Your task to perform on an android device: set the timer Image 0: 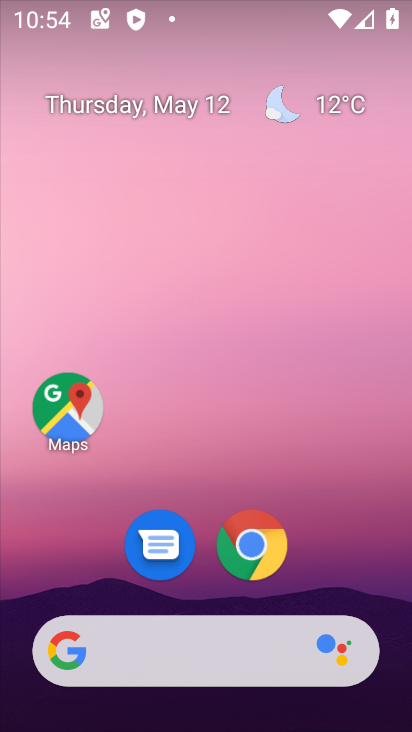
Step 0: drag from (207, 590) to (204, 45)
Your task to perform on an android device: set the timer Image 1: 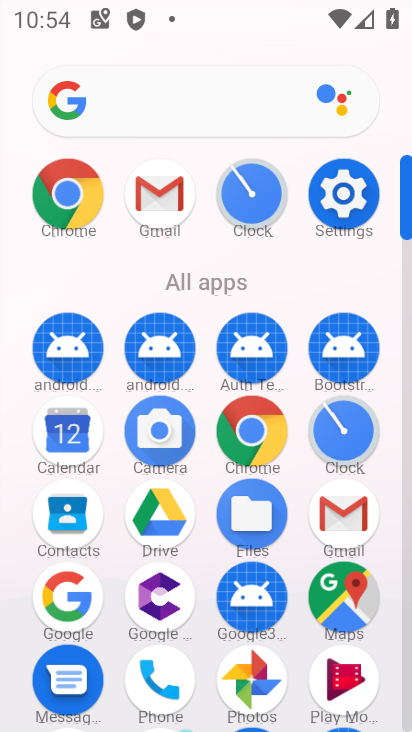
Step 1: click (252, 190)
Your task to perform on an android device: set the timer Image 2: 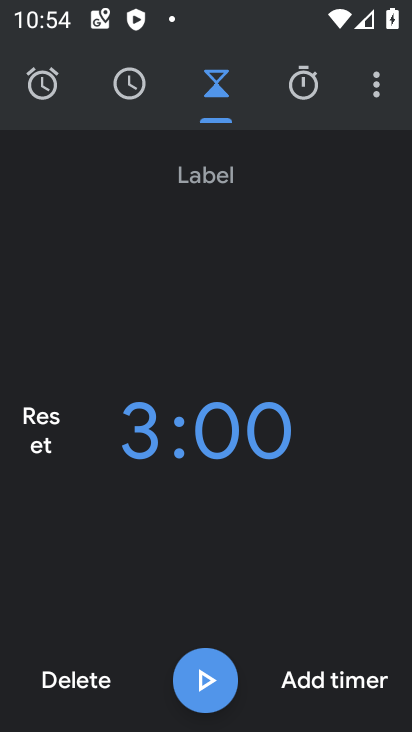
Step 2: click (208, 668)
Your task to perform on an android device: set the timer Image 3: 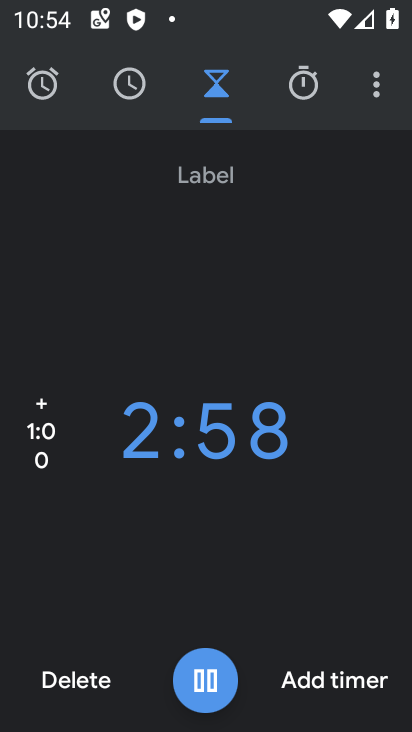
Step 3: click (41, 396)
Your task to perform on an android device: set the timer Image 4: 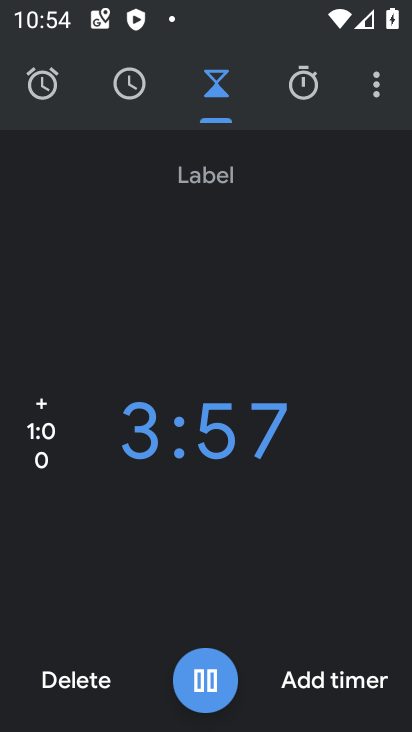
Step 4: click (41, 396)
Your task to perform on an android device: set the timer Image 5: 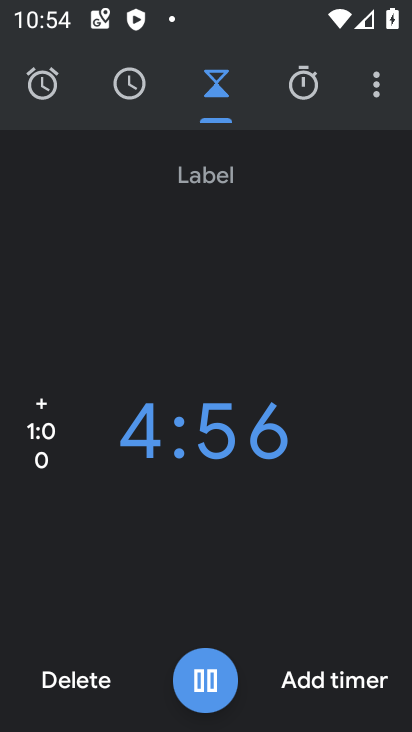
Step 5: click (41, 396)
Your task to perform on an android device: set the timer Image 6: 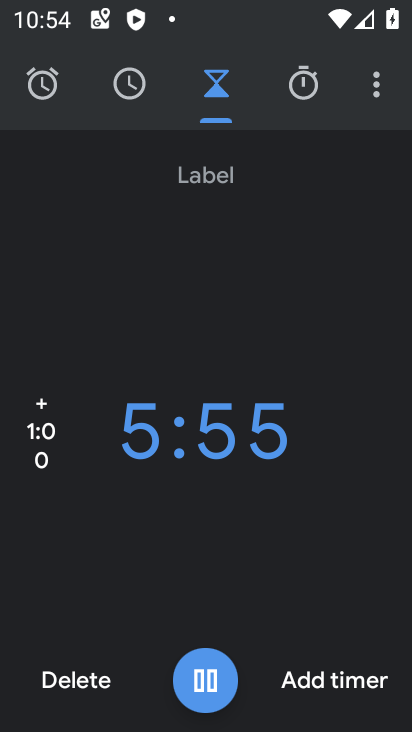
Step 6: click (41, 396)
Your task to perform on an android device: set the timer Image 7: 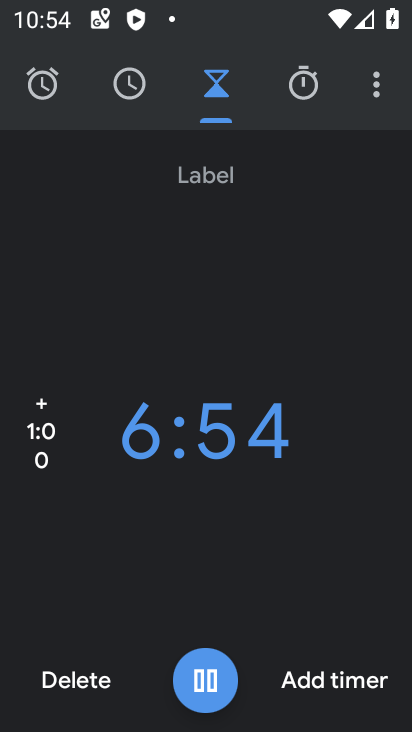
Step 7: click (41, 396)
Your task to perform on an android device: set the timer Image 8: 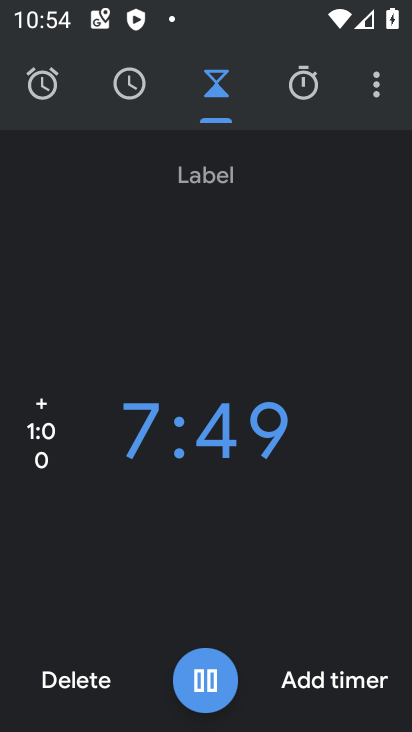
Step 8: task complete